Your task to perform on an android device: Add usb-b to the cart on ebay Image 0: 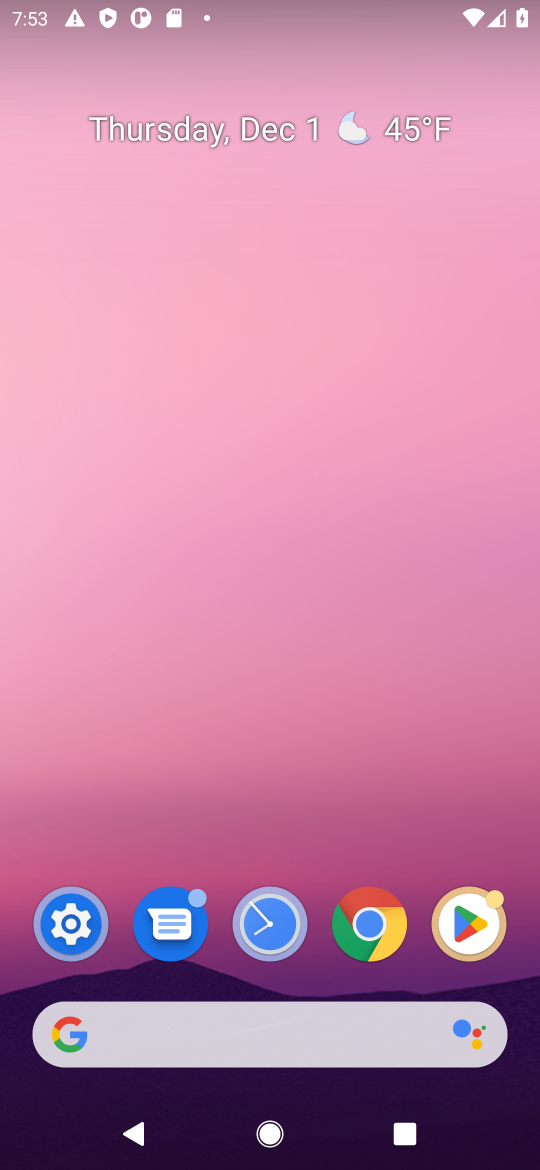
Step 0: click (268, 1018)
Your task to perform on an android device: Add usb-b to the cart on ebay Image 1: 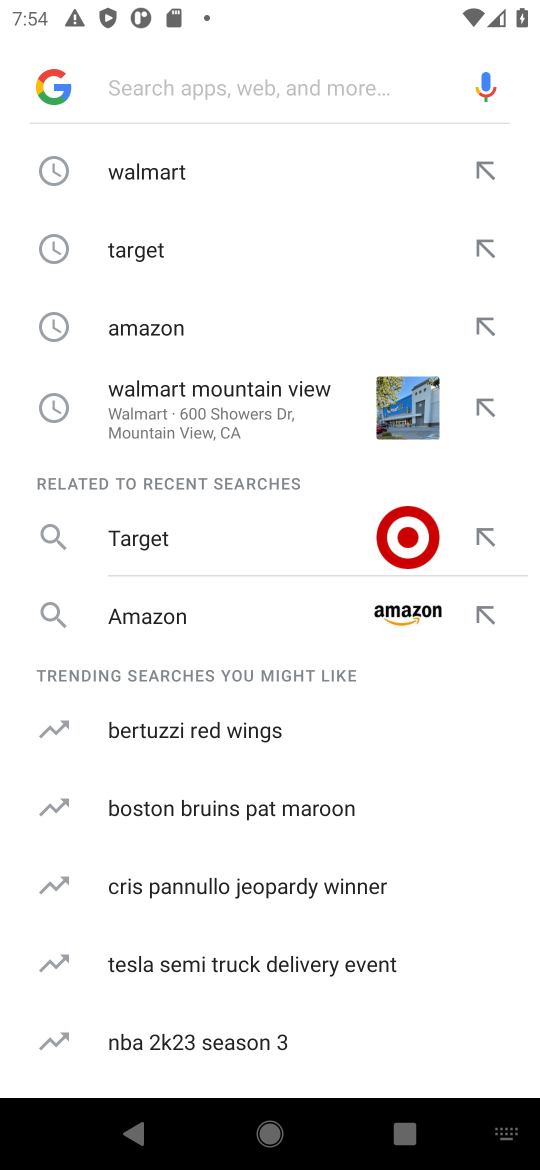
Step 1: type "ebay"
Your task to perform on an android device: Add usb-b to the cart on ebay Image 2: 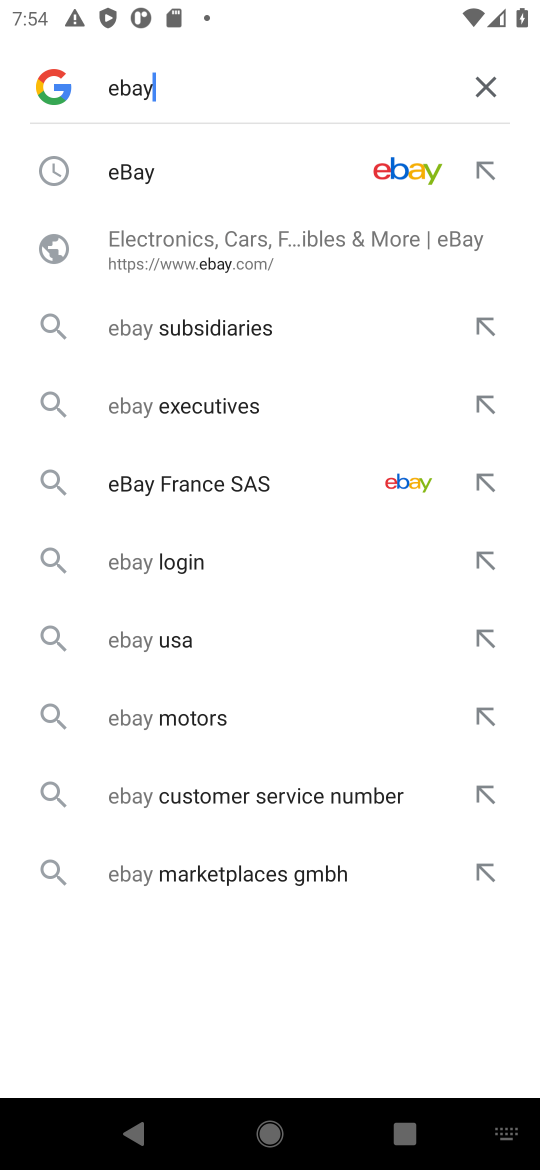
Step 2: click (163, 175)
Your task to perform on an android device: Add usb-b to the cart on ebay Image 3: 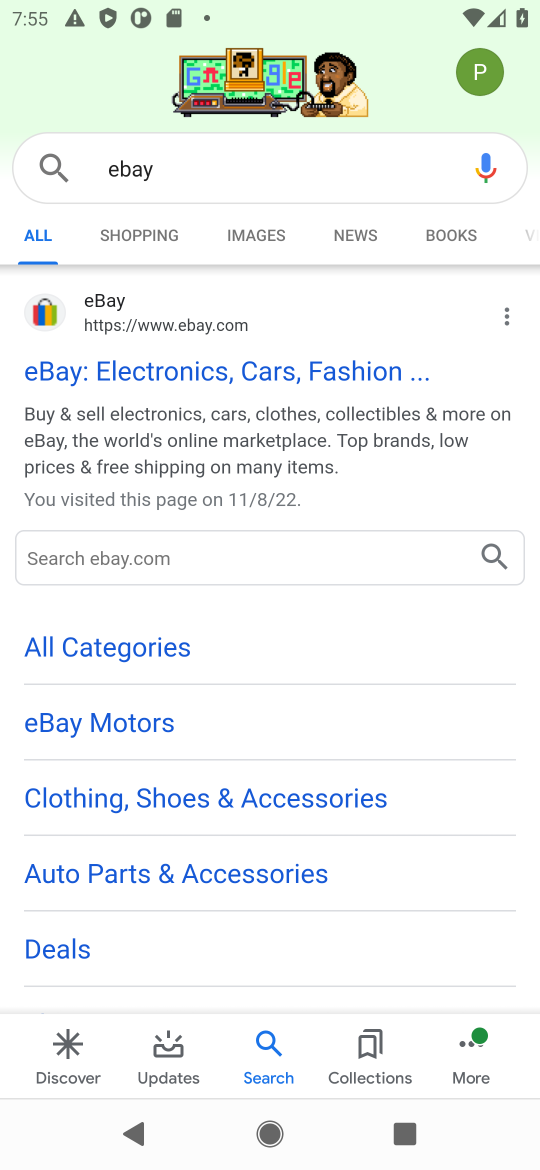
Step 3: click (158, 359)
Your task to perform on an android device: Add usb-b to the cart on ebay Image 4: 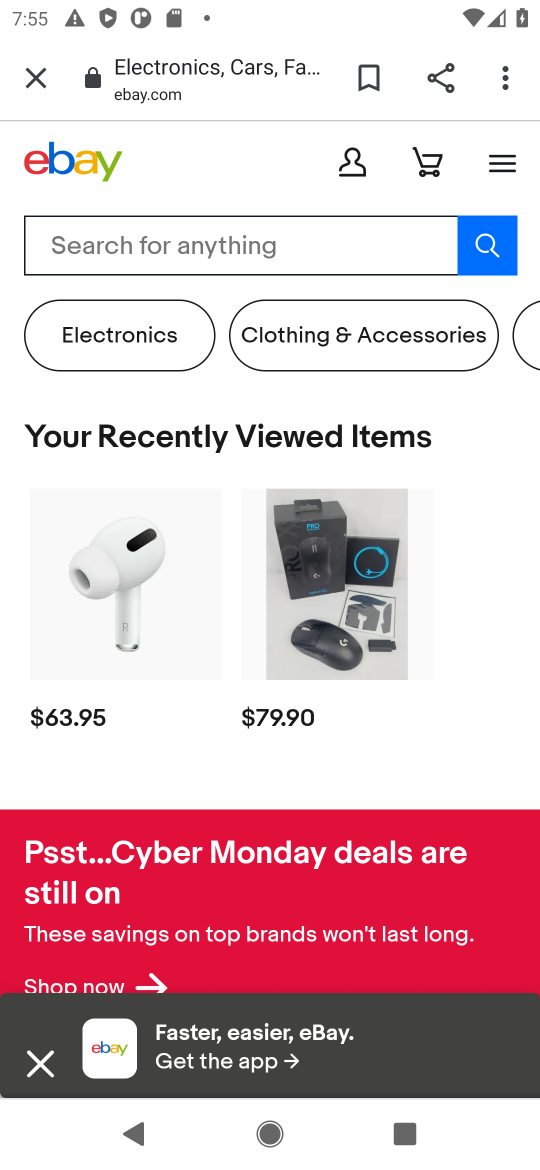
Step 4: click (264, 230)
Your task to perform on an android device: Add usb-b to the cart on ebay Image 5: 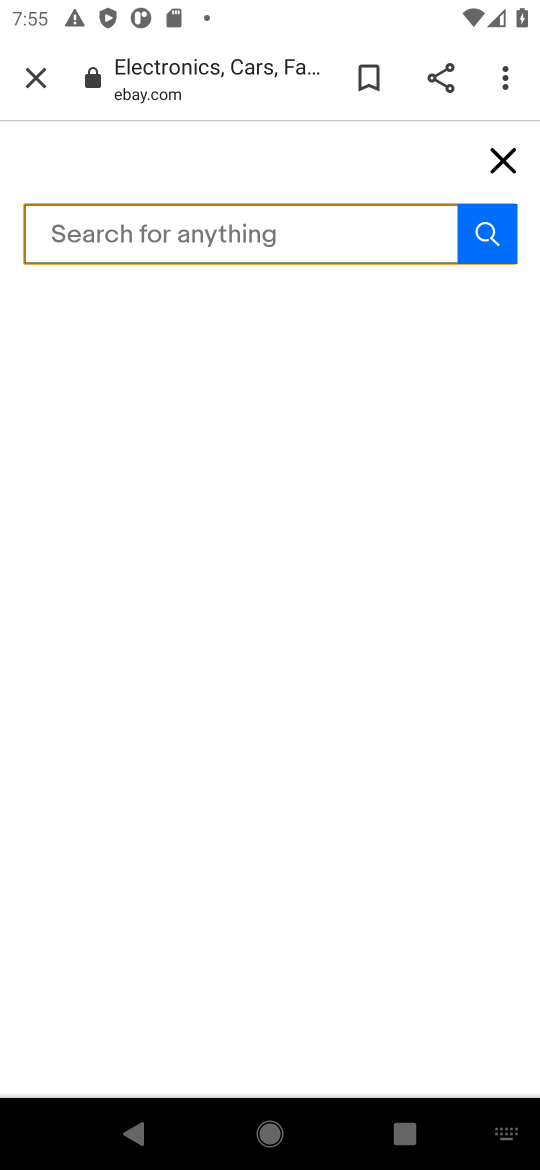
Step 5: type "usb-b"
Your task to perform on an android device: Add usb-b to the cart on ebay Image 6: 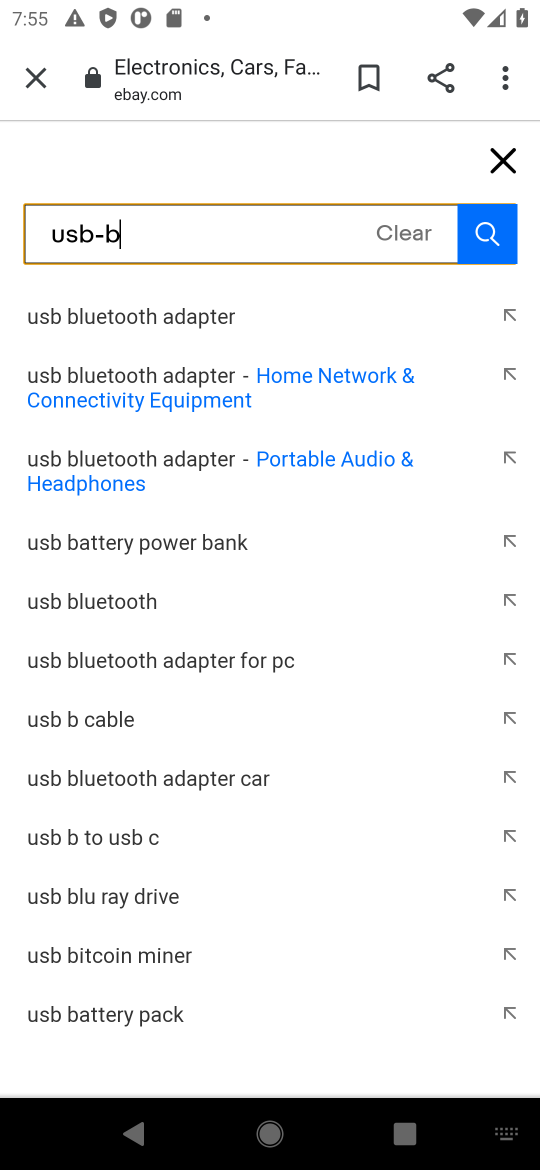
Step 6: click (487, 231)
Your task to perform on an android device: Add usb-b to the cart on ebay Image 7: 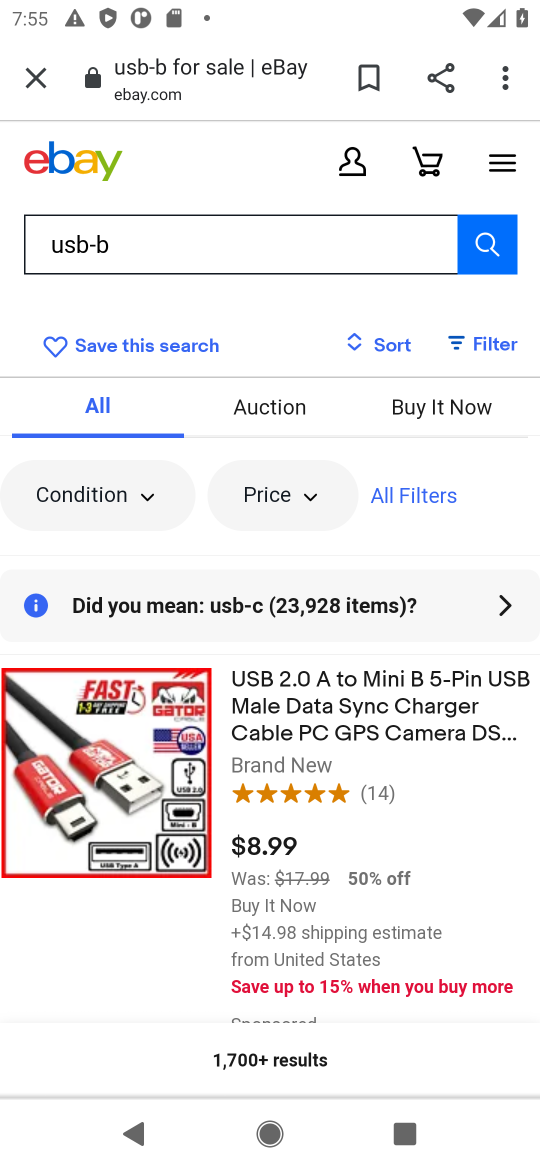
Step 7: click (452, 692)
Your task to perform on an android device: Add usb-b to the cart on ebay Image 8: 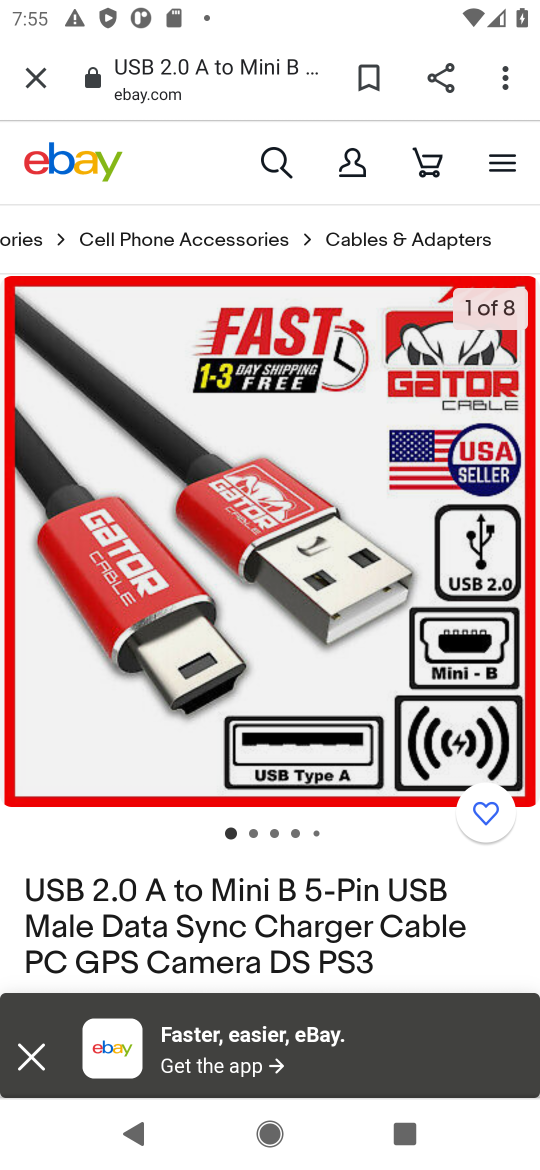
Step 8: click (54, 1064)
Your task to perform on an android device: Add usb-b to the cart on ebay Image 9: 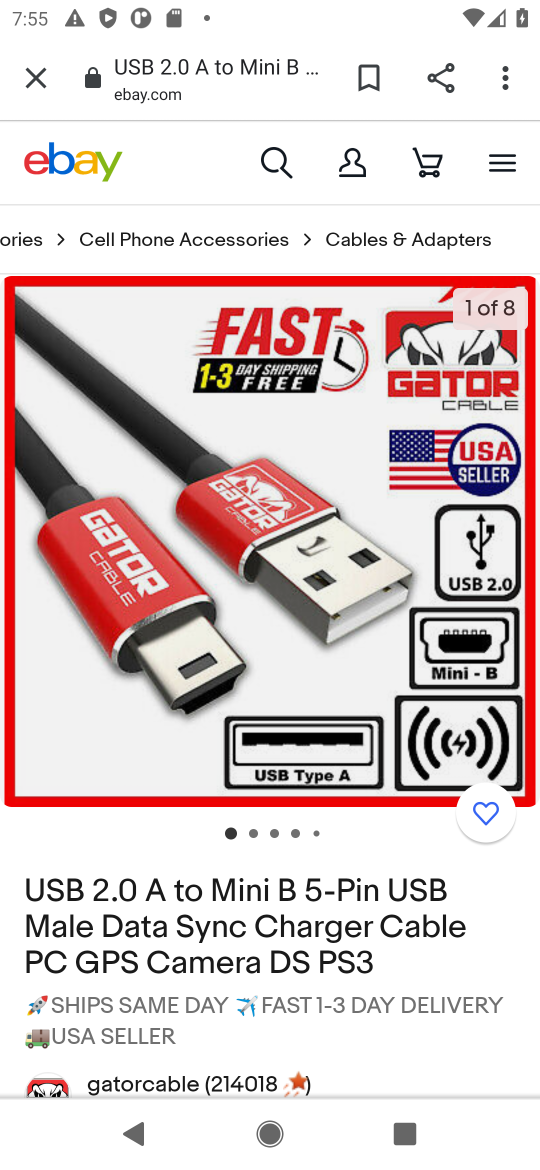
Step 9: drag from (476, 969) to (277, 248)
Your task to perform on an android device: Add usb-b to the cart on ebay Image 10: 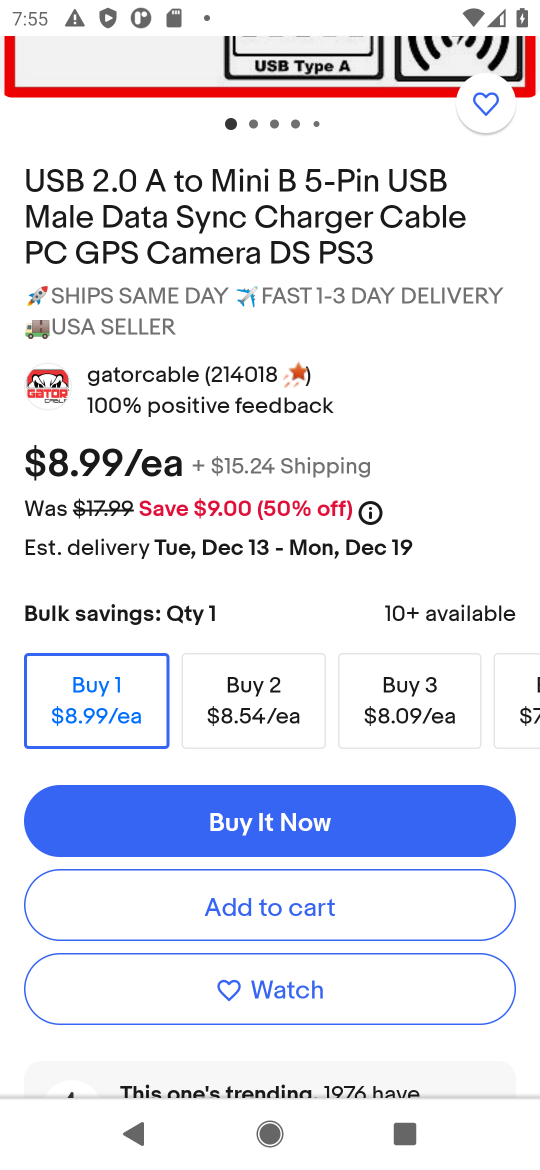
Step 10: click (332, 895)
Your task to perform on an android device: Add usb-b to the cart on ebay Image 11: 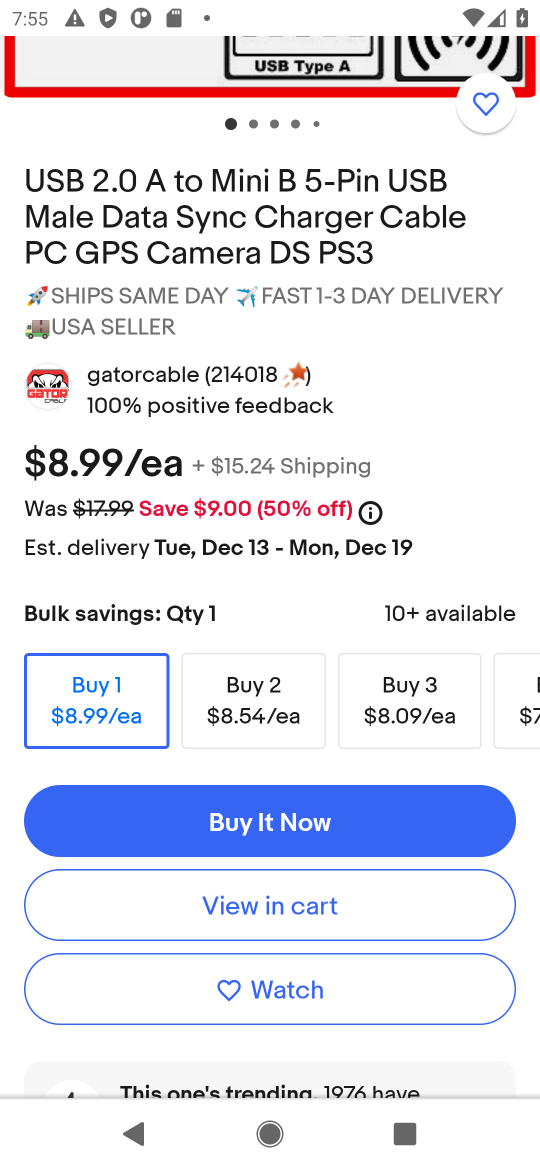
Step 11: task complete